Your task to perform on an android device: open app "Life360: Find Family & Friends" Image 0: 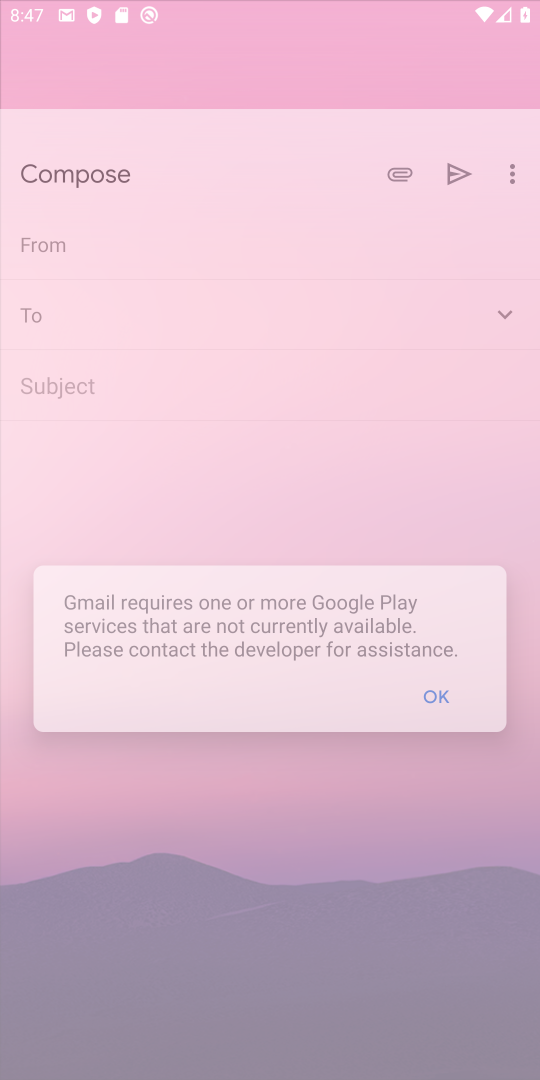
Step 0: press back button
Your task to perform on an android device: open app "Life360: Find Family & Friends" Image 1: 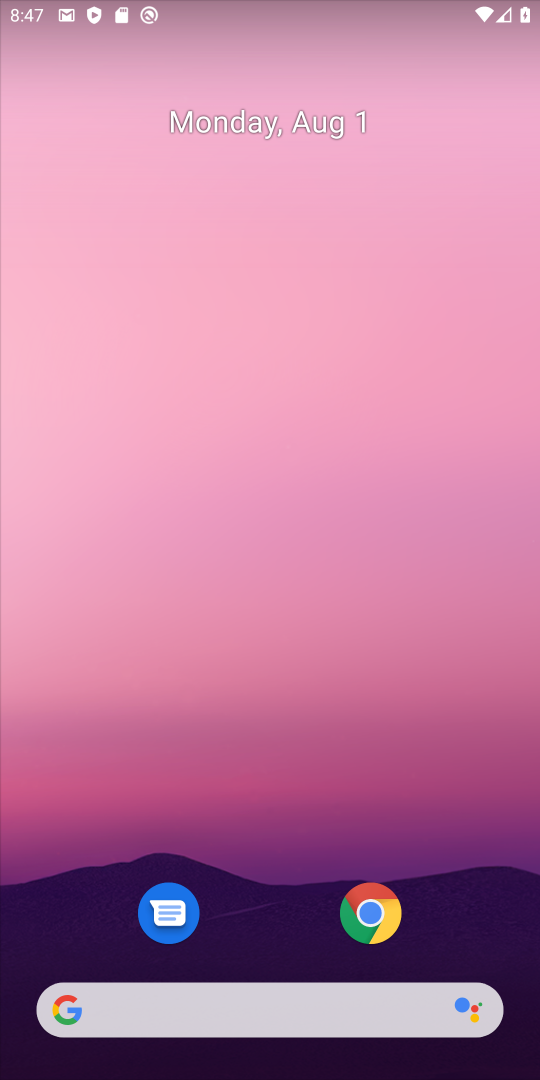
Step 1: drag from (241, 780) to (298, 210)
Your task to perform on an android device: open app "Life360: Find Family & Friends" Image 2: 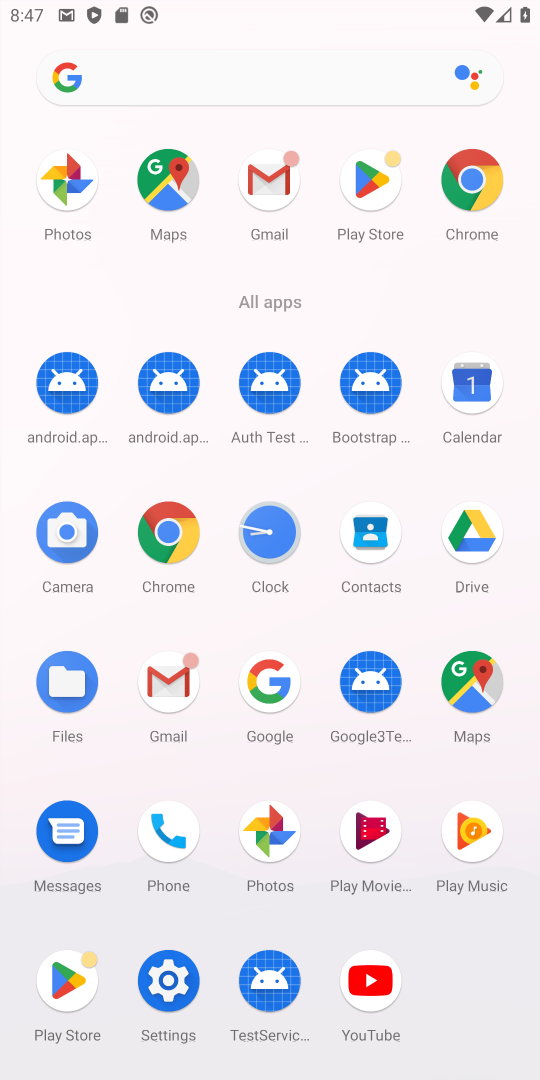
Step 2: click (75, 979)
Your task to perform on an android device: open app "Life360: Find Family & Friends" Image 3: 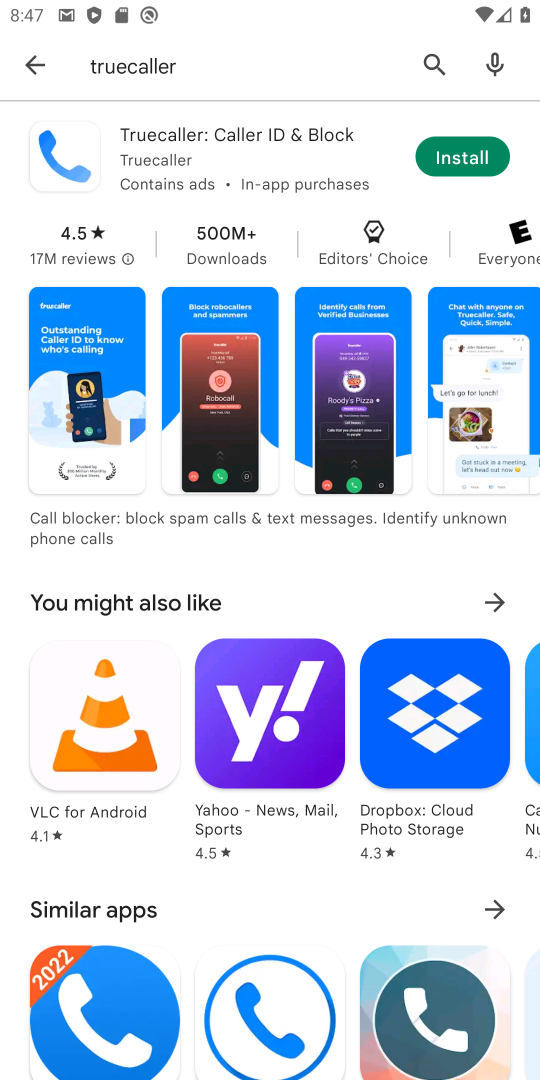
Step 3: click (260, 78)
Your task to perform on an android device: open app "Life360: Find Family & Friends" Image 4: 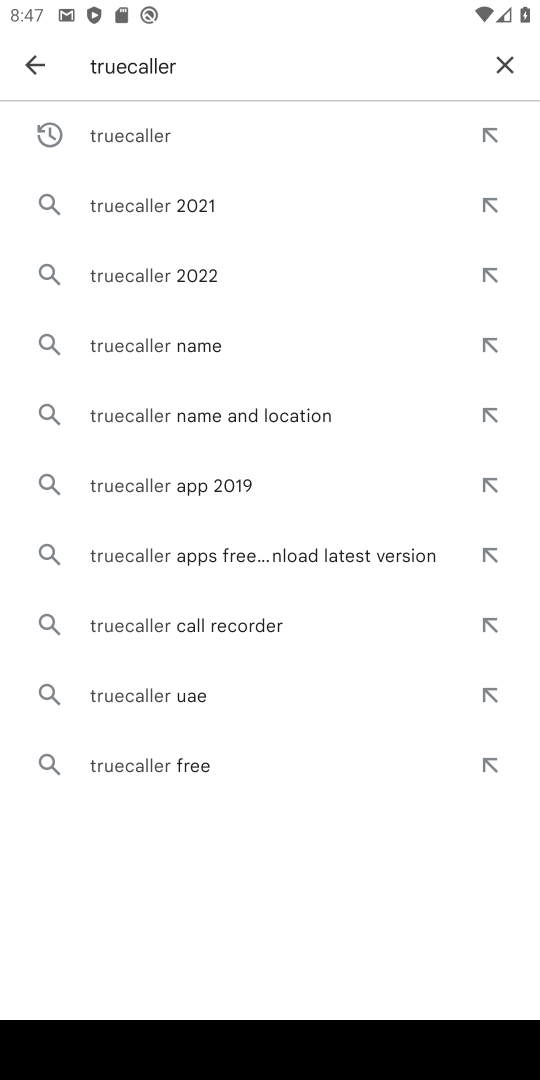
Step 4: click (508, 61)
Your task to perform on an android device: open app "Life360: Find Family & Friends" Image 5: 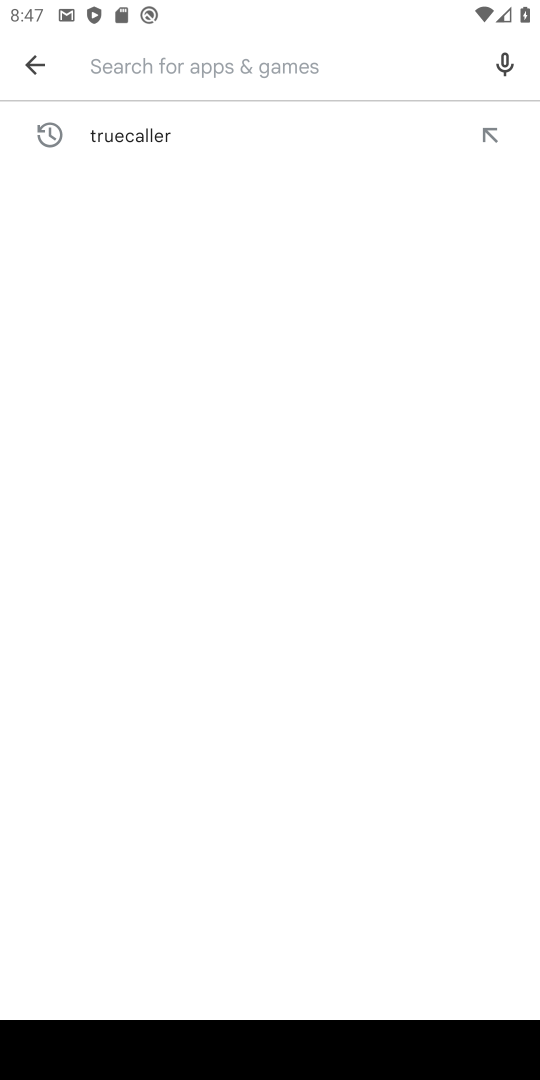
Step 5: type "Life360: Find Family & Friends"
Your task to perform on an android device: open app "Life360: Find Family & Friends" Image 6: 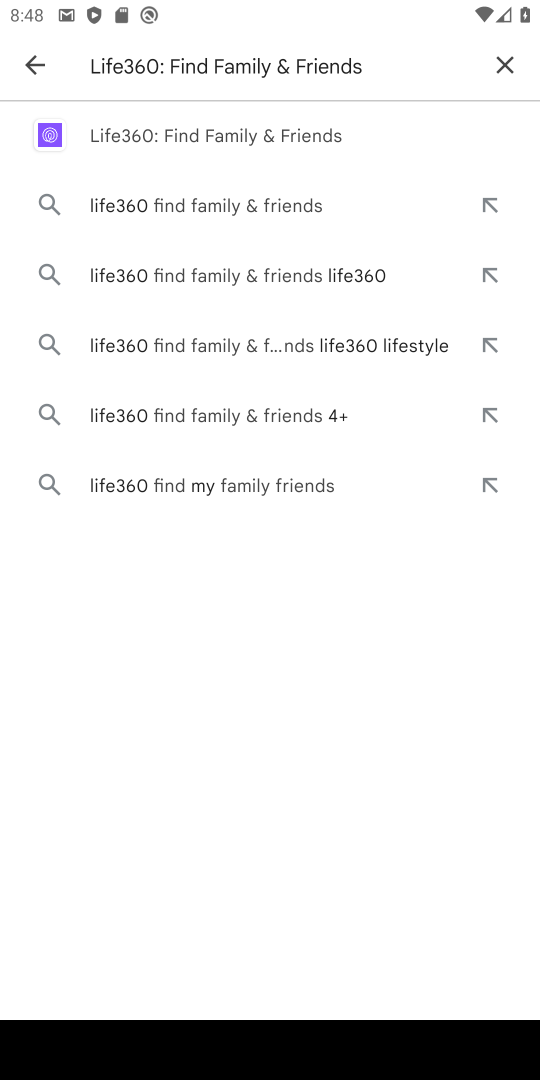
Step 6: click (206, 132)
Your task to perform on an android device: open app "Life360: Find Family & Friends" Image 7: 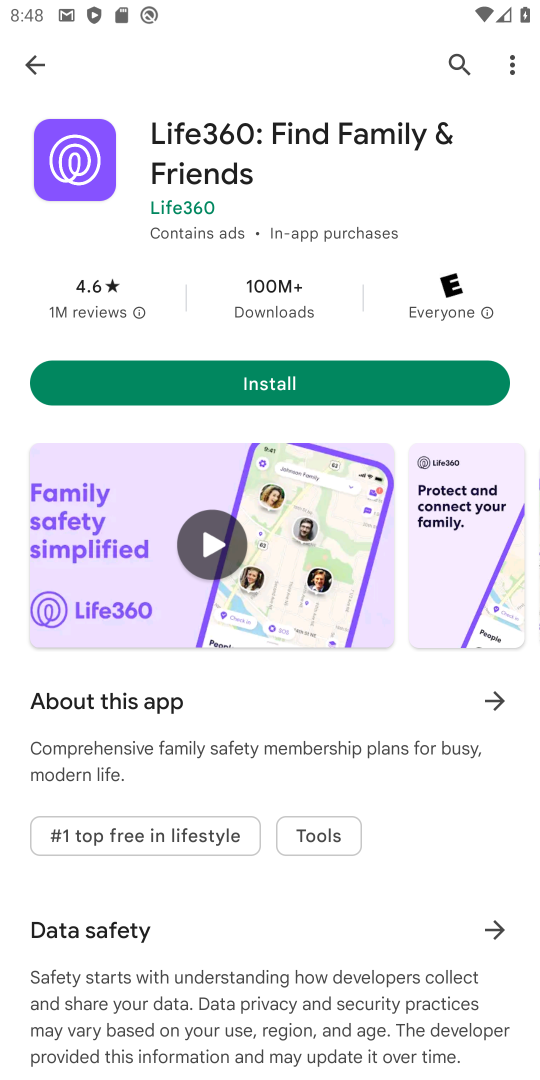
Step 7: task complete